Your task to perform on an android device: open wifi settings Image 0: 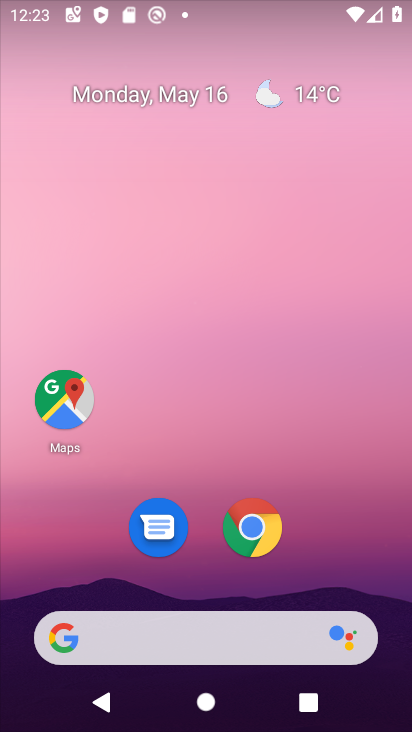
Step 0: drag from (227, 586) to (248, 74)
Your task to perform on an android device: open wifi settings Image 1: 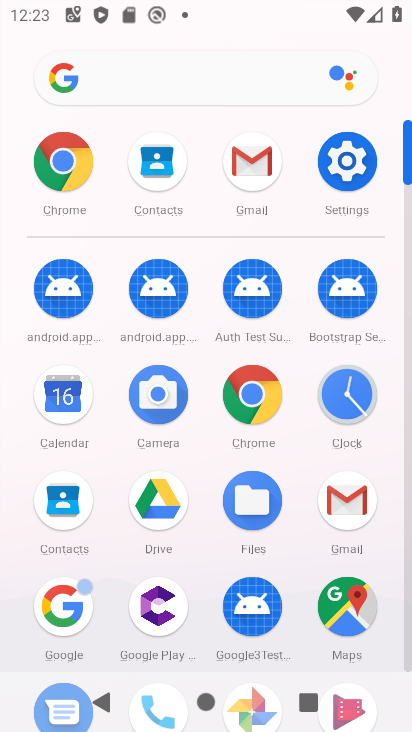
Step 1: click (358, 192)
Your task to perform on an android device: open wifi settings Image 2: 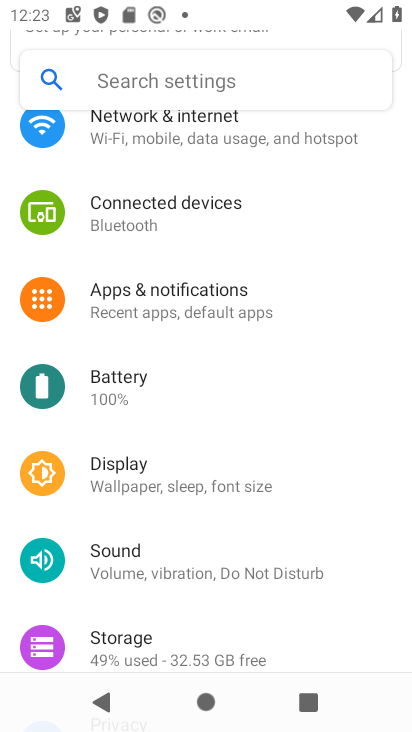
Step 2: drag from (250, 184) to (244, 364)
Your task to perform on an android device: open wifi settings Image 3: 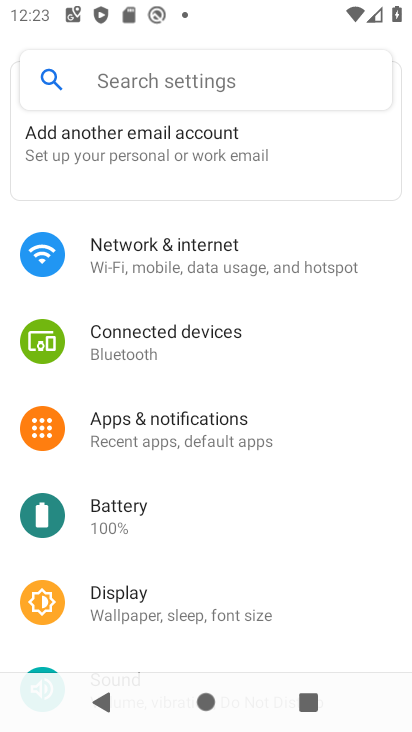
Step 3: click (167, 263)
Your task to perform on an android device: open wifi settings Image 4: 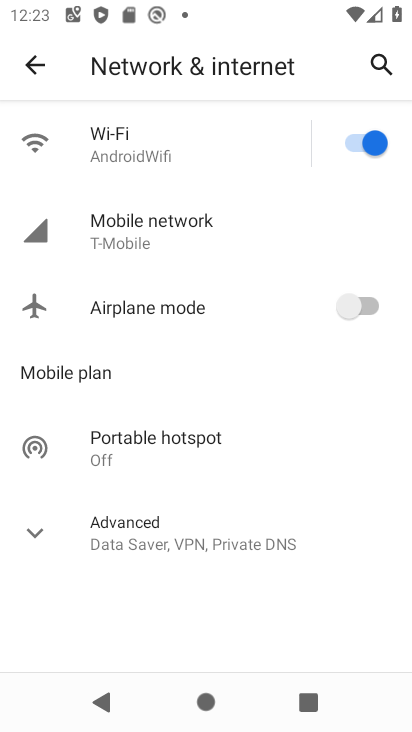
Step 4: click (126, 143)
Your task to perform on an android device: open wifi settings Image 5: 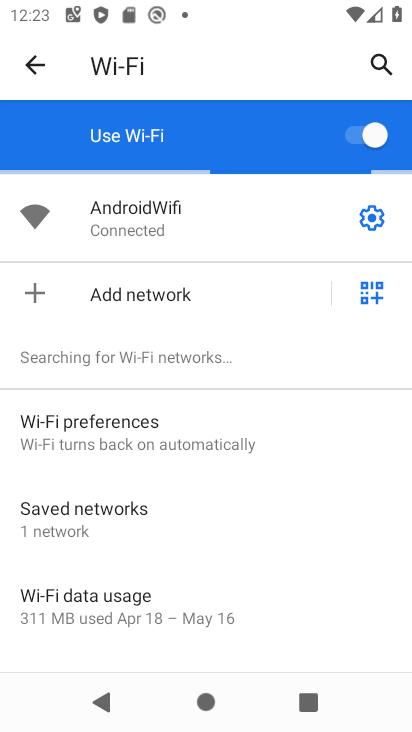
Step 5: task complete